Your task to perform on an android device: turn on bluetooth scan Image 0: 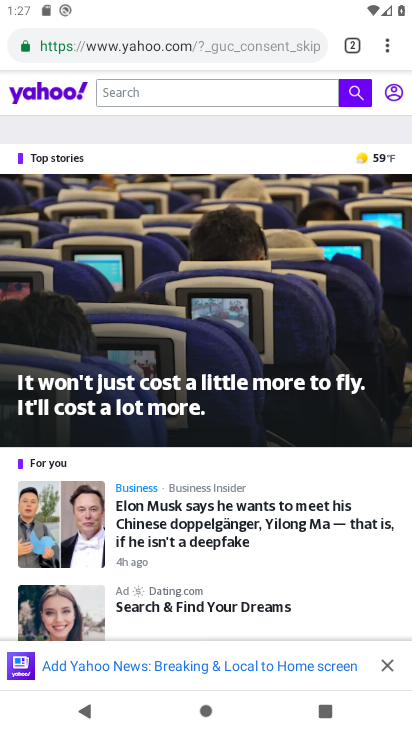
Step 0: press home button
Your task to perform on an android device: turn on bluetooth scan Image 1: 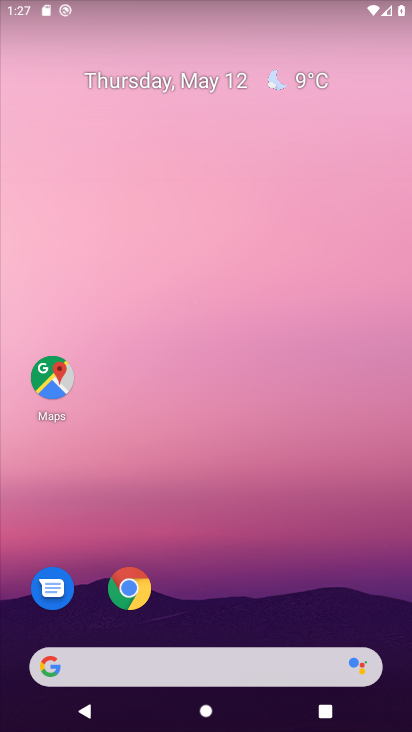
Step 1: drag from (256, 533) to (235, 4)
Your task to perform on an android device: turn on bluetooth scan Image 2: 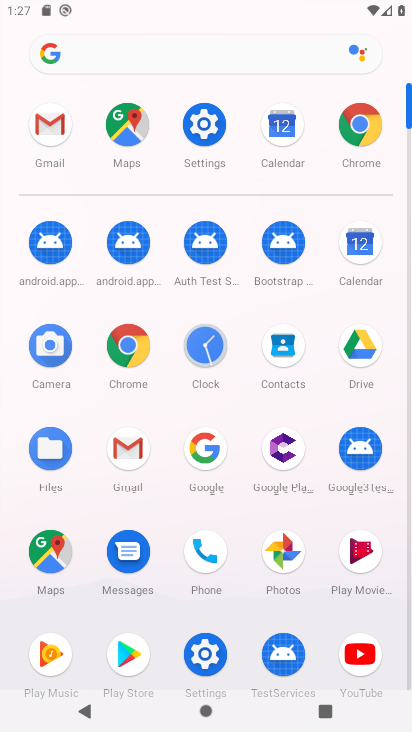
Step 2: click (179, 103)
Your task to perform on an android device: turn on bluetooth scan Image 3: 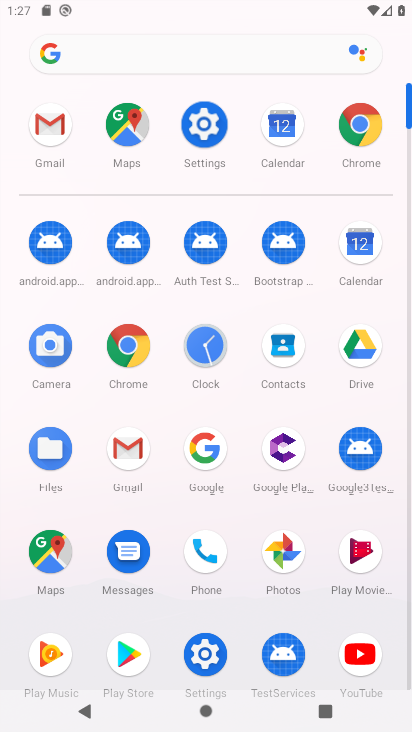
Step 3: click (190, 119)
Your task to perform on an android device: turn on bluetooth scan Image 4: 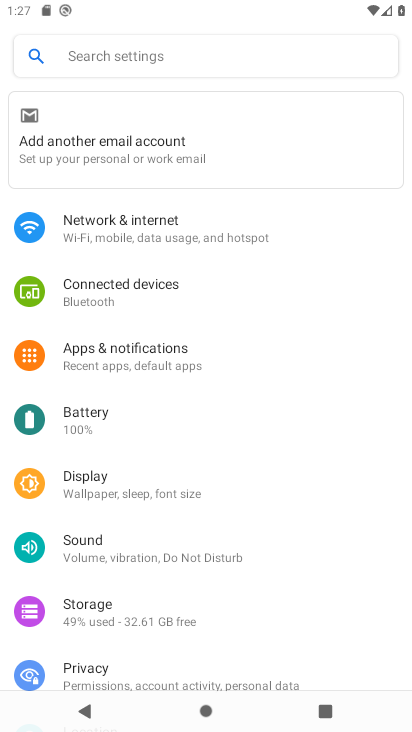
Step 4: drag from (183, 649) to (201, 224)
Your task to perform on an android device: turn on bluetooth scan Image 5: 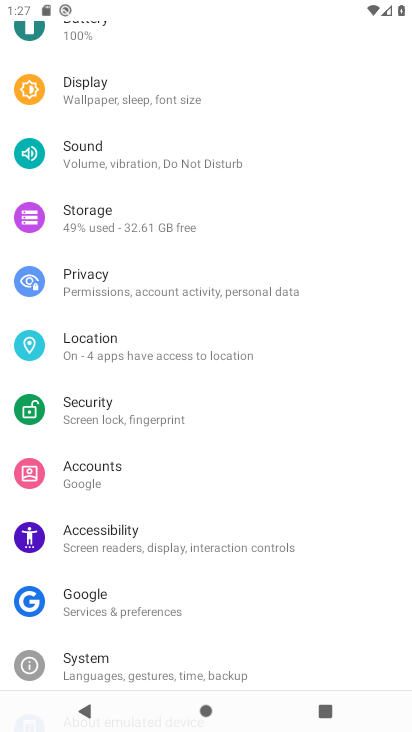
Step 5: click (132, 340)
Your task to perform on an android device: turn on bluetooth scan Image 6: 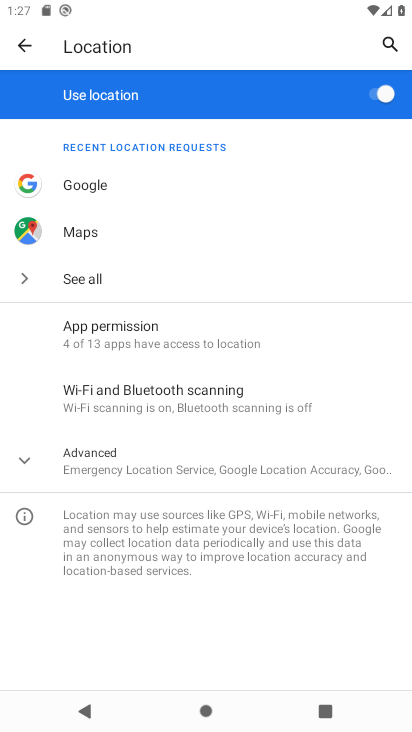
Step 6: click (197, 400)
Your task to perform on an android device: turn on bluetooth scan Image 7: 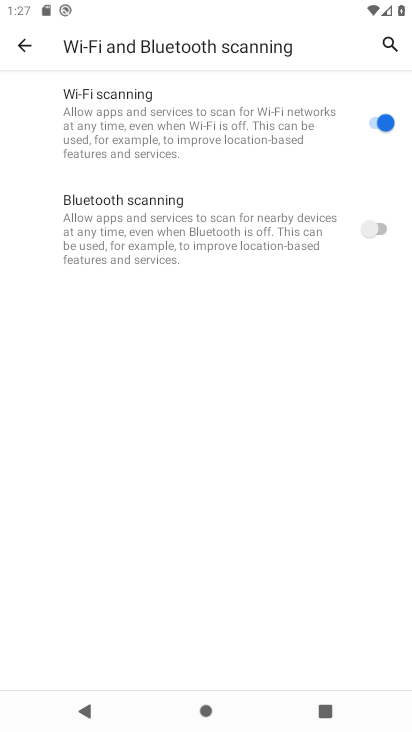
Step 7: click (374, 234)
Your task to perform on an android device: turn on bluetooth scan Image 8: 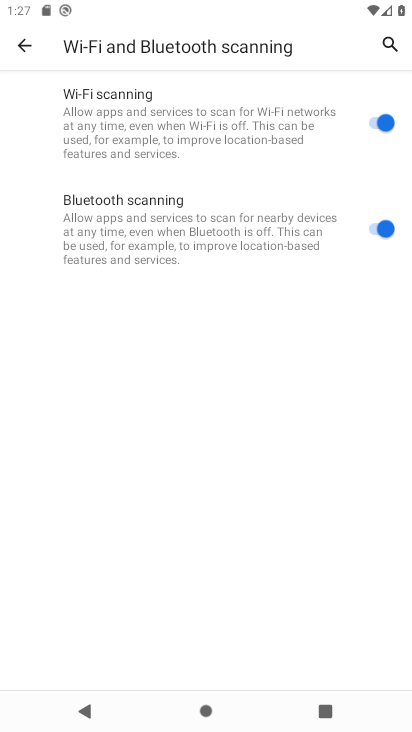
Step 8: task complete